Your task to perform on an android device: open chrome privacy settings Image 0: 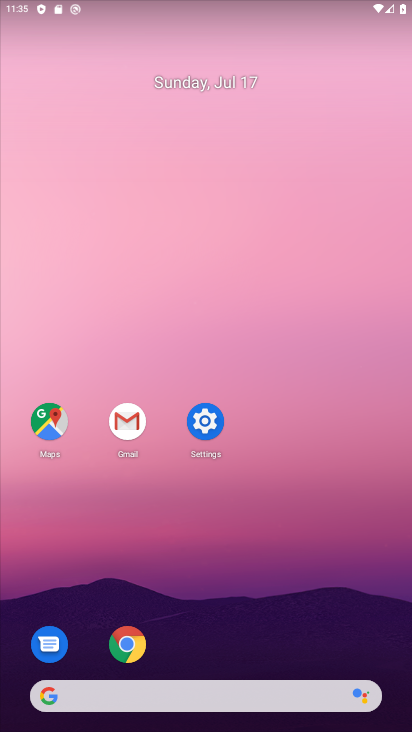
Step 0: click (129, 643)
Your task to perform on an android device: open chrome privacy settings Image 1: 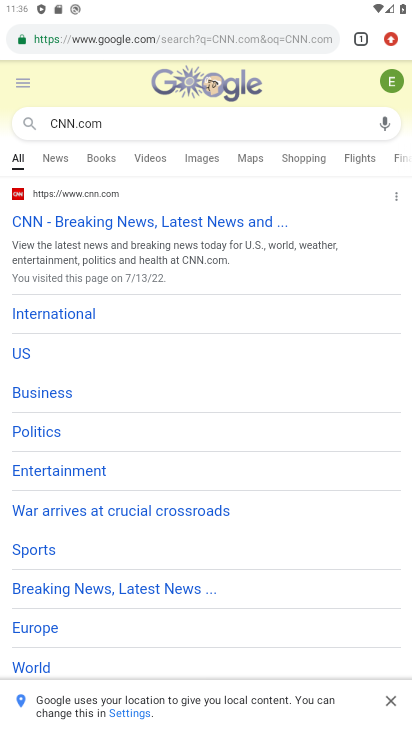
Step 1: click (392, 41)
Your task to perform on an android device: open chrome privacy settings Image 2: 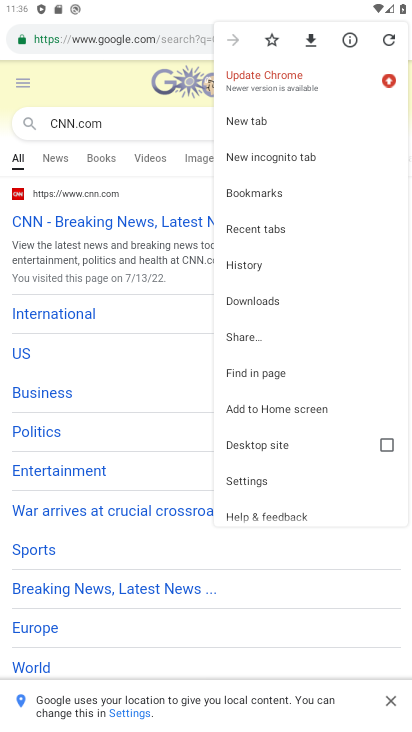
Step 2: click (240, 480)
Your task to perform on an android device: open chrome privacy settings Image 3: 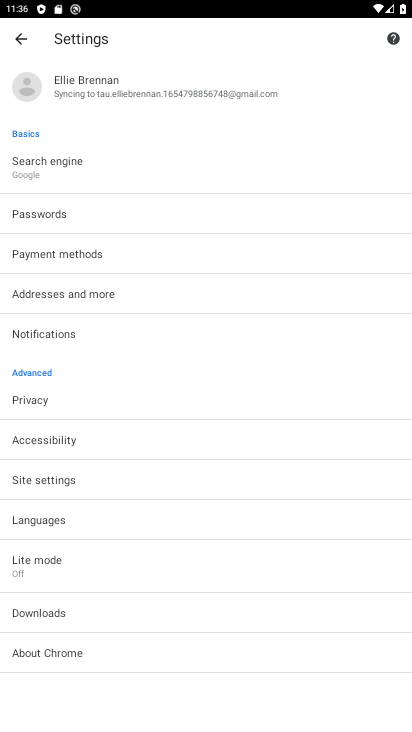
Step 3: click (53, 404)
Your task to perform on an android device: open chrome privacy settings Image 4: 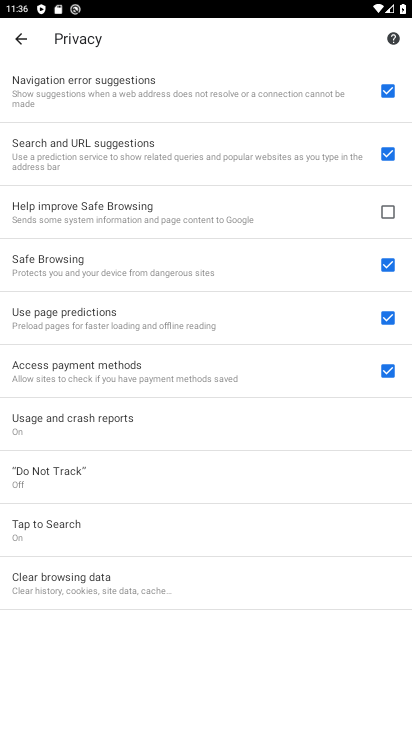
Step 4: task complete